Your task to perform on an android device: see sites visited before in the chrome app Image 0: 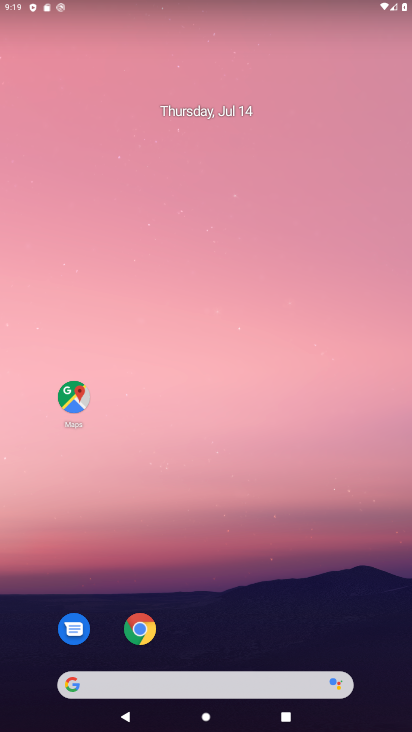
Step 0: click (141, 630)
Your task to perform on an android device: see sites visited before in the chrome app Image 1: 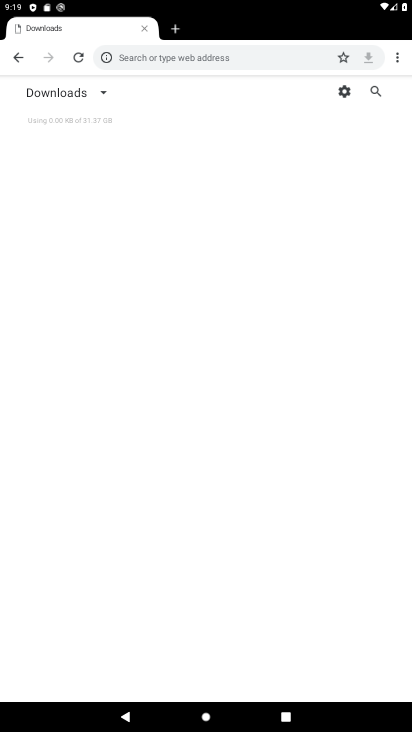
Step 1: click (395, 60)
Your task to perform on an android device: see sites visited before in the chrome app Image 2: 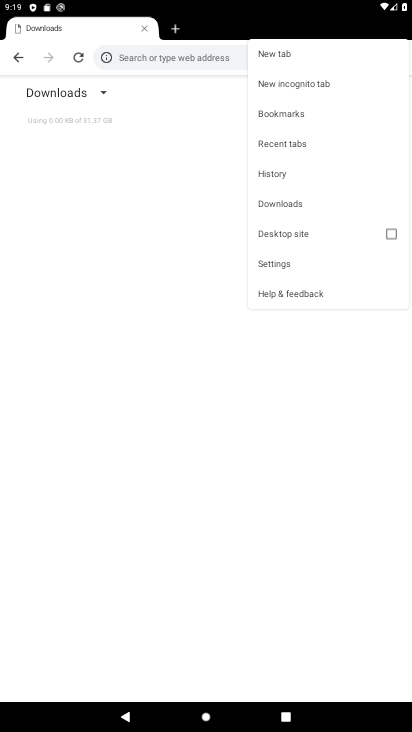
Step 2: click (288, 174)
Your task to perform on an android device: see sites visited before in the chrome app Image 3: 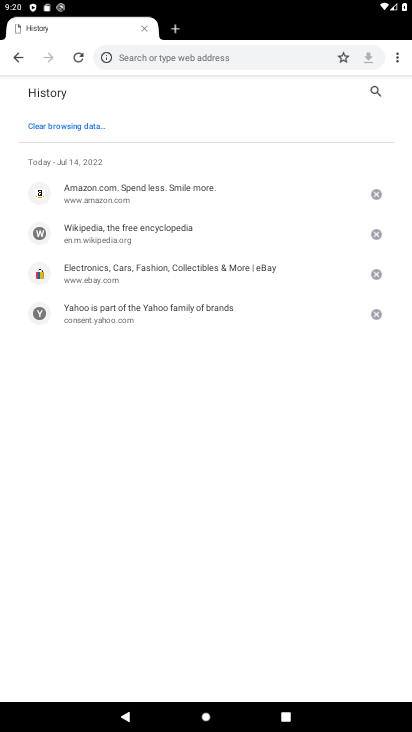
Step 3: task complete